Your task to perform on an android device: Open Maps and search for coffee Image 0: 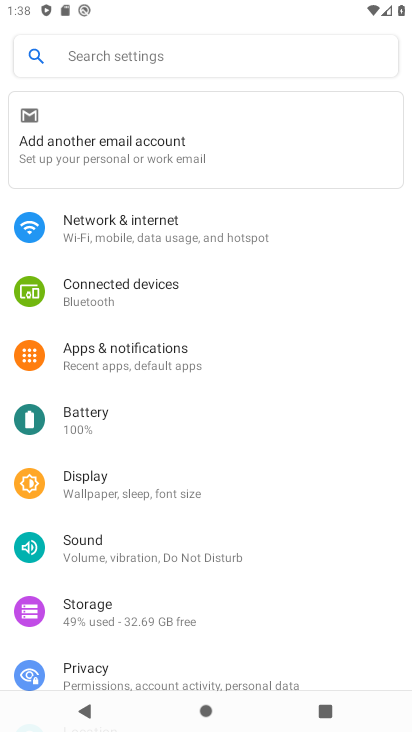
Step 0: press back button
Your task to perform on an android device: Open Maps and search for coffee Image 1: 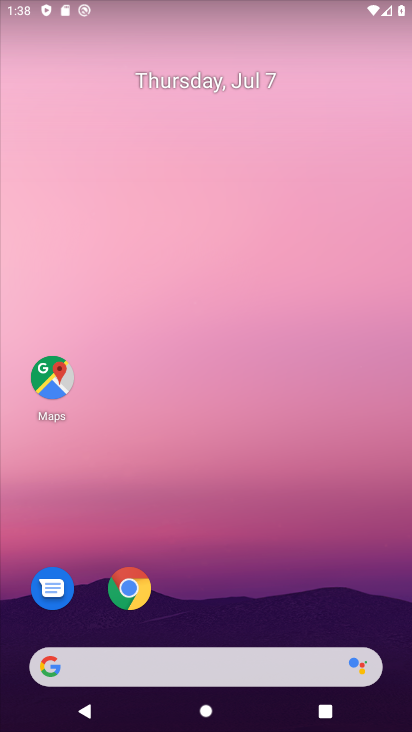
Step 1: click (57, 384)
Your task to perform on an android device: Open Maps and search for coffee Image 2: 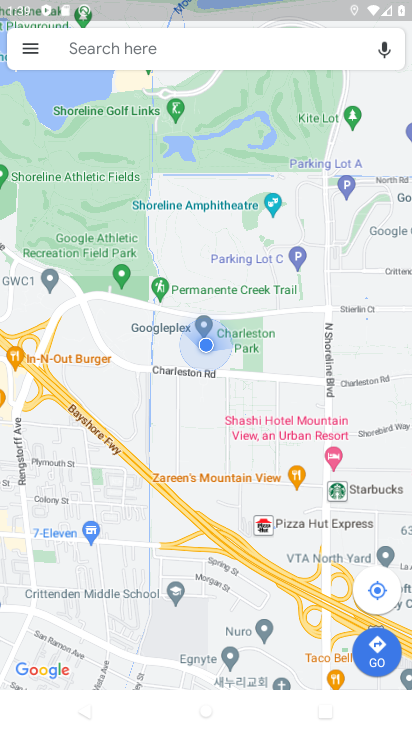
Step 2: click (170, 47)
Your task to perform on an android device: Open Maps and search for coffee Image 3: 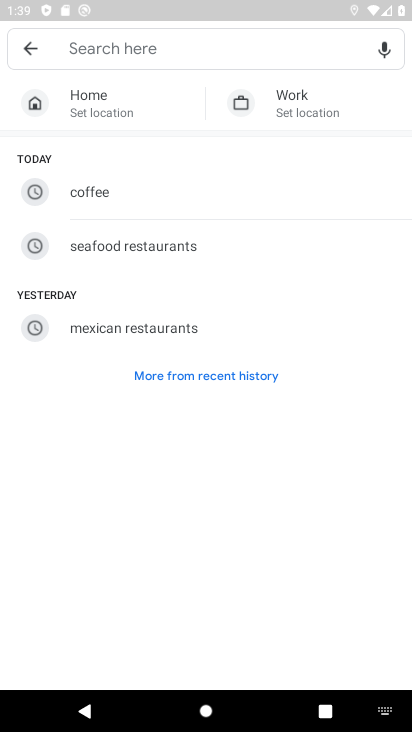
Step 3: type "coffee"
Your task to perform on an android device: Open Maps and search for coffee Image 4: 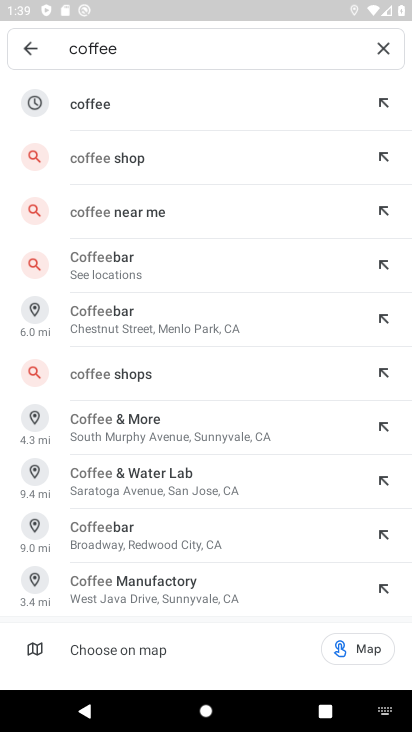
Step 4: click (112, 78)
Your task to perform on an android device: Open Maps and search for coffee Image 5: 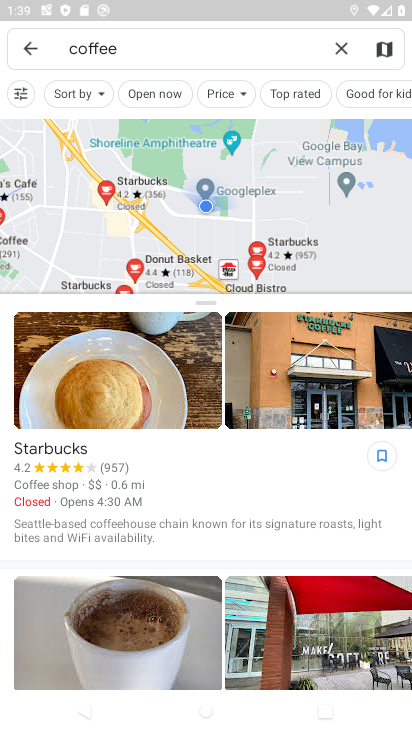
Step 5: task complete